Your task to perform on an android device: What's the weather going to be tomorrow? Image 0: 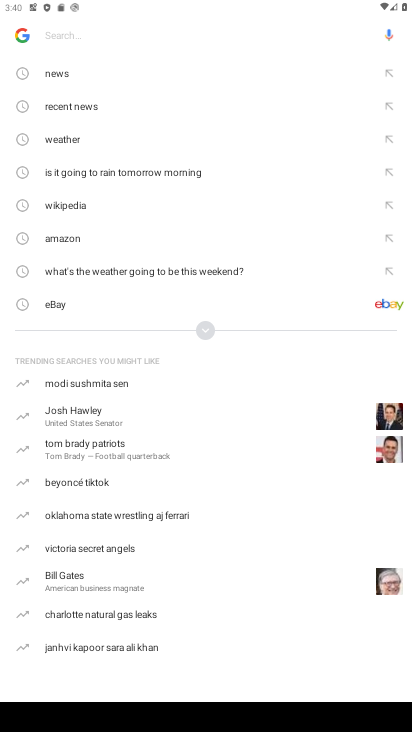
Step 0: click (209, 325)
Your task to perform on an android device: What's the weather going to be tomorrow? Image 1: 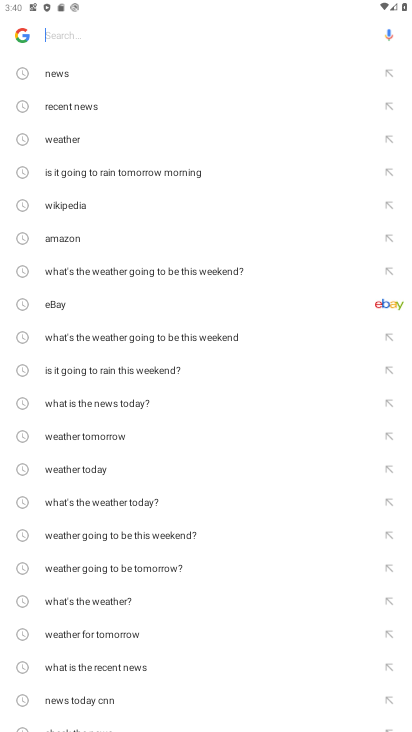
Step 1: click (138, 563)
Your task to perform on an android device: What's the weather going to be tomorrow? Image 2: 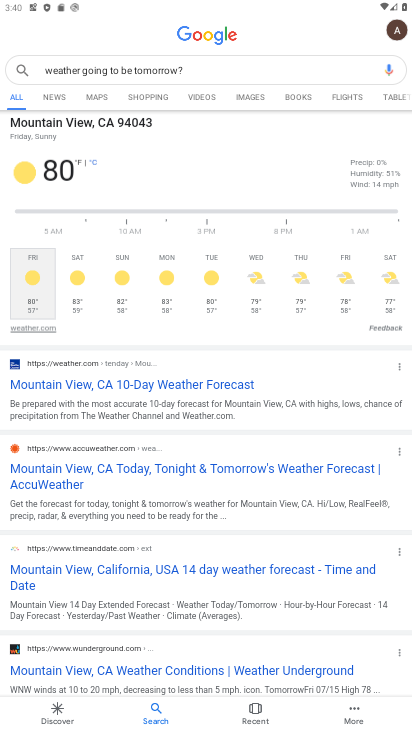
Step 2: task complete